Your task to perform on an android device: check the backup settings in the google photos Image 0: 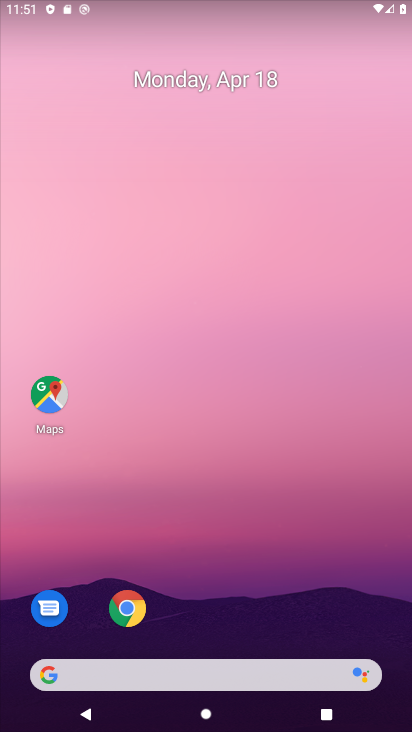
Step 0: drag from (205, 551) to (248, 205)
Your task to perform on an android device: check the backup settings in the google photos Image 1: 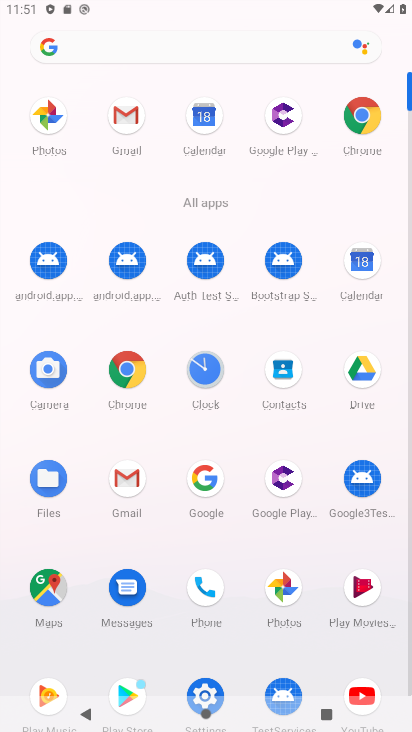
Step 1: click (284, 588)
Your task to perform on an android device: check the backup settings in the google photos Image 2: 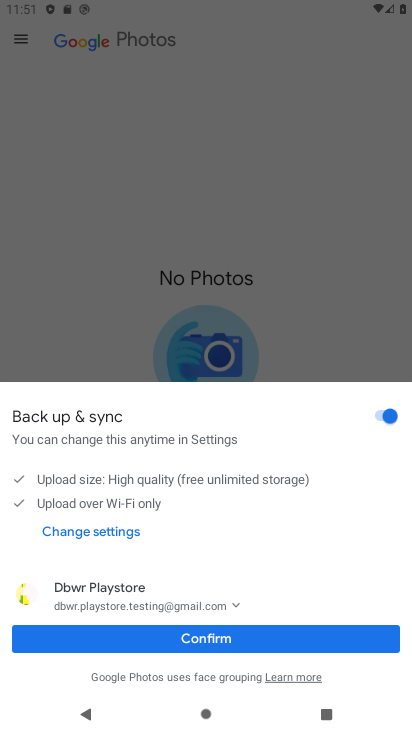
Step 2: click (238, 629)
Your task to perform on an android device: check the backup settings in the google photos Image 3: 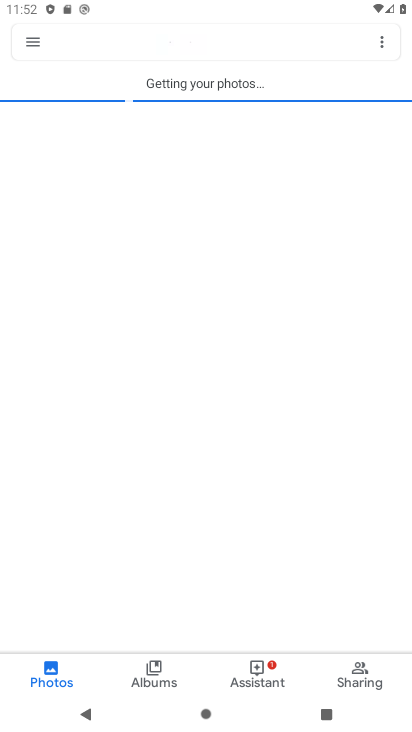
Step 3: click (36, 37)
Your task to perform on an android device: check the backup settings in the google photos Image 4: 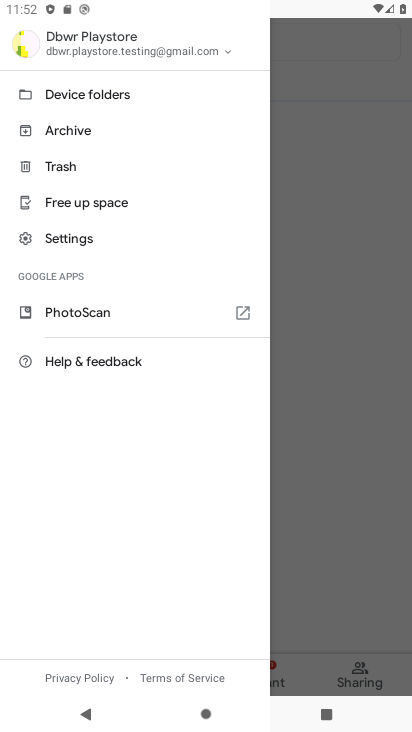
Step 4: click (113, 245)
Your task to perform on an android device: check the backup settings in the google photos Image 5: 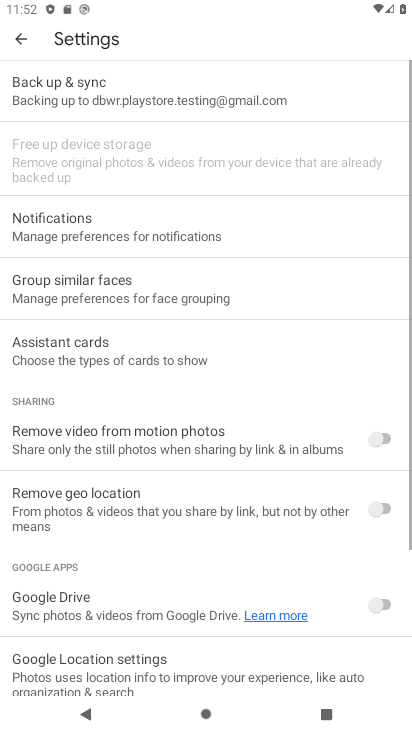
Step 5: click (140, 111)
Your task to perform on an android device: check the backup settings in the google photos Image 6: 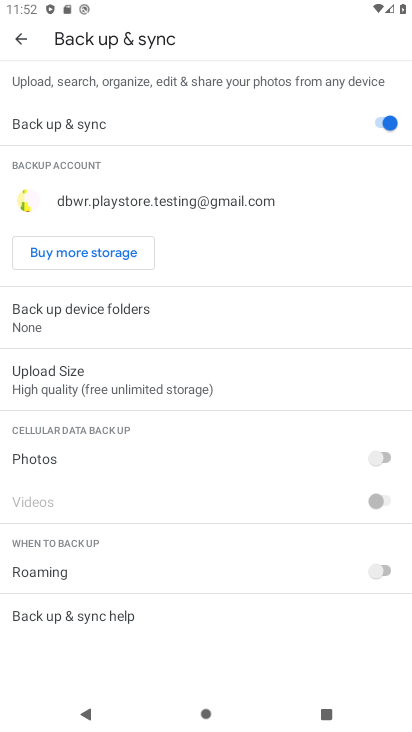
Step 6: task complete